Your task to perform on an android device: Show me the alarms in the clock app Image 0: 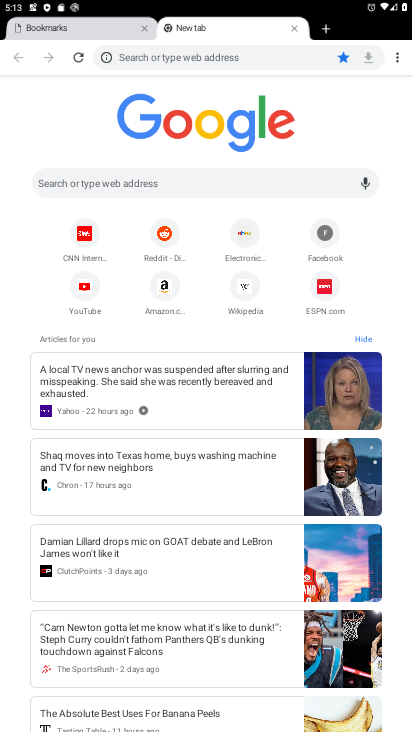
Step 0: press home button
Your task to perform on an android device: Show me the alarms in the clock app Image 1: 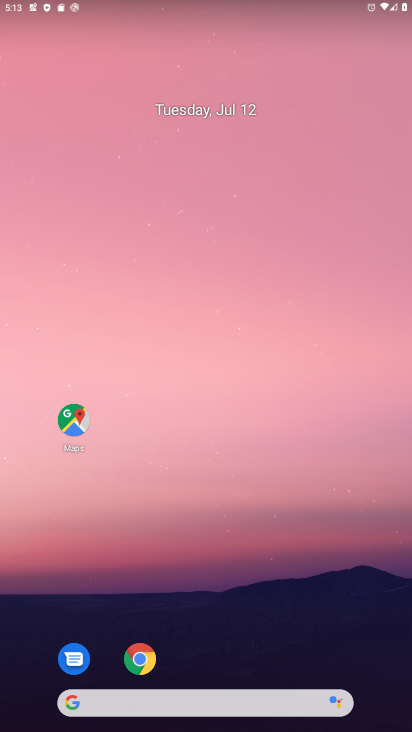
Step 1: drag from (222, 330) to (219, 154)
Your task to perform on an android device: Show me the alarms in the clock app Image 2: 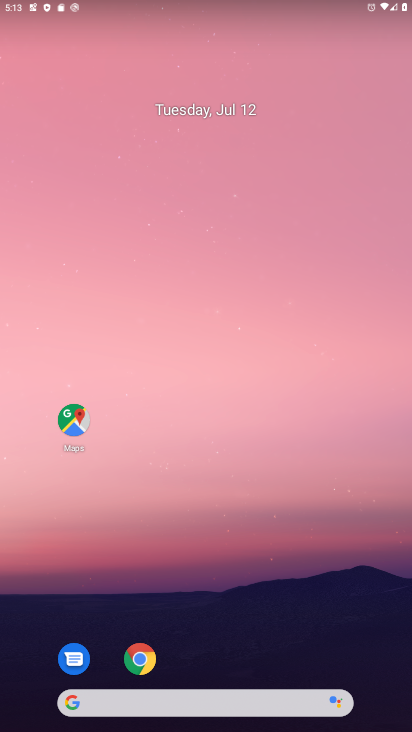
Step 2: drag from (202, 325) to (196, 197)
Your task to perform on an android device: Show me the alarms in the clock app Image 3: 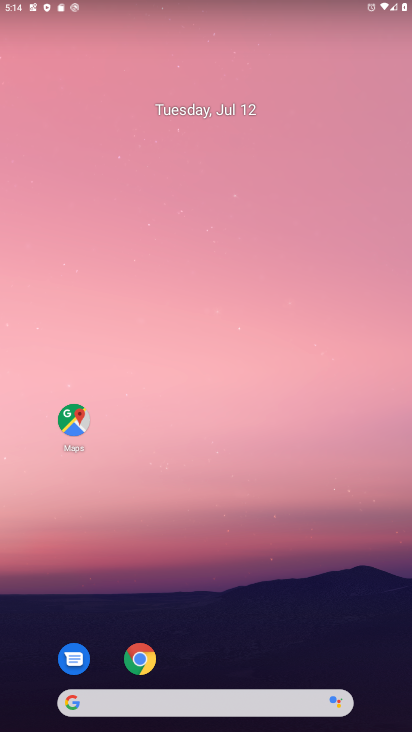
Step 3: drag from (204, 376) to (280, 181)
Your task to perform on an android device: Show me the alarms in the clock app Image 4: 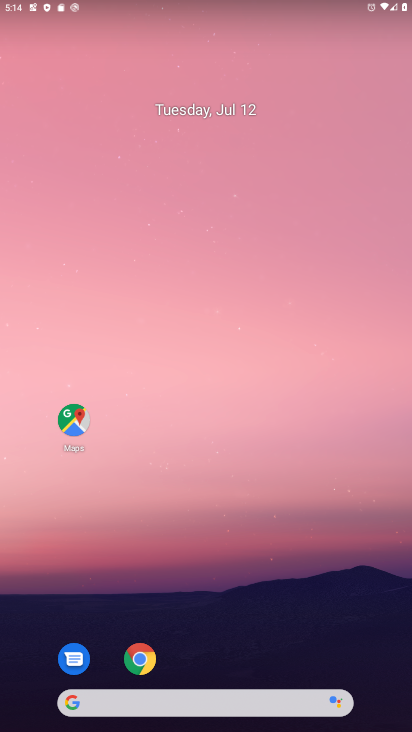
Step 4: drag from (201, 470) to (286, 41)
Your task to perform on an android device: Show me the alarms in the clock app Image 5: 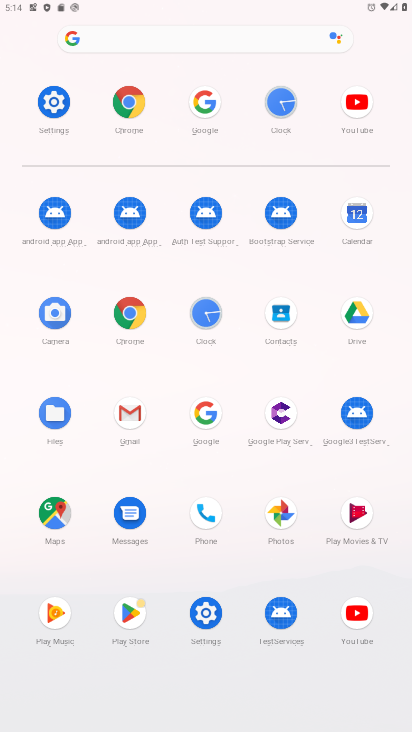
Step 5: click (201, 311)
Your task to perform on an android device: Show me the alarms in the clock app Image 6: 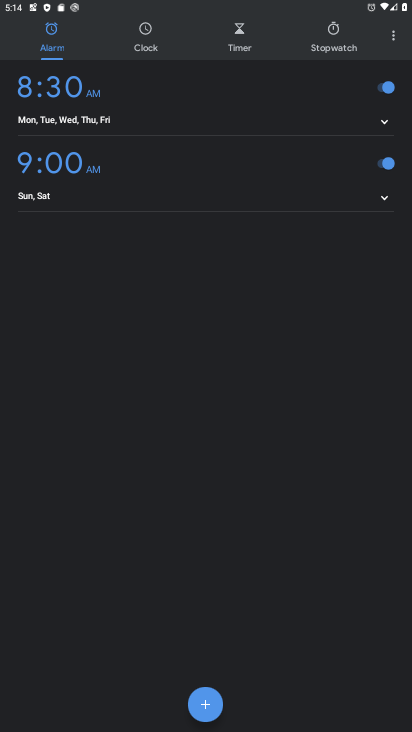
Step 6: task complete